Your task to perform on an android device: create a new album in the google photos Image 0: 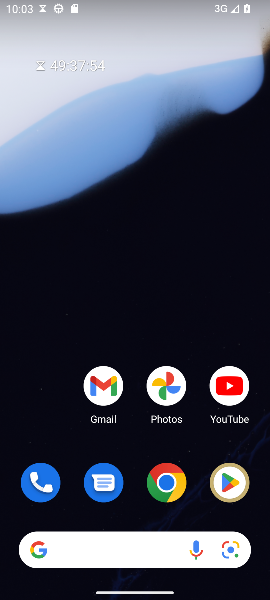
Step 0: drag from (128, 505) to (265, 41)
Your task to perform on an android device: create a new album in the google photos Image 1: 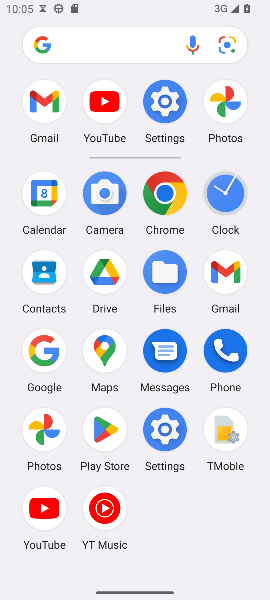
Step 1: click (220, 111)
Your task to perform on an android device: create a new album in the google photos Image 2: 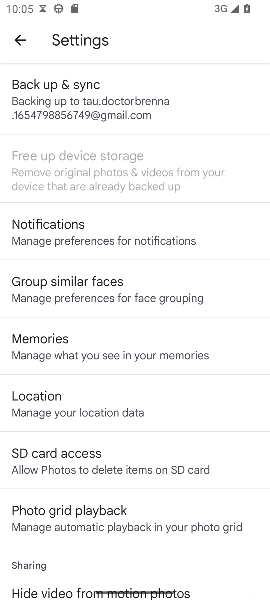
Step 2: click (25, 39)
Your task to perform on an android device: create a new album in the google photos Image 3: 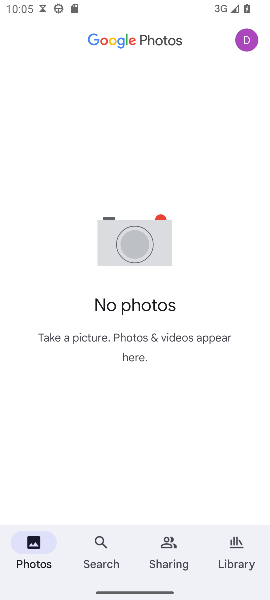
Step 3: task complete